Your task to perform on an android device: stop showing notifications on the lock screen Image 0: 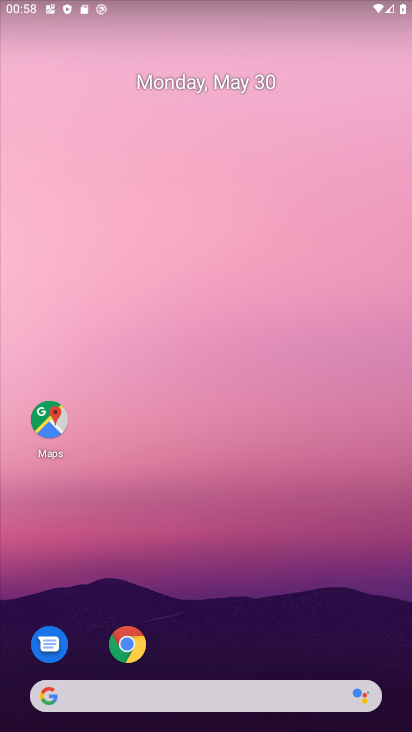
Step 0: drag from (330, 557) to (331, 168)
Your task to perform on an android device: stop showing notifications on the lock screen Image 1: 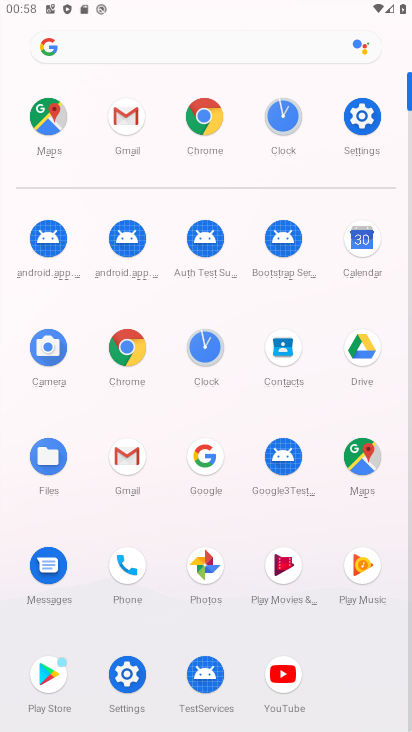
Step 1: click (377, 127)
Your task to perform on an android device: stop showing notifications on the lock screen Image 2: 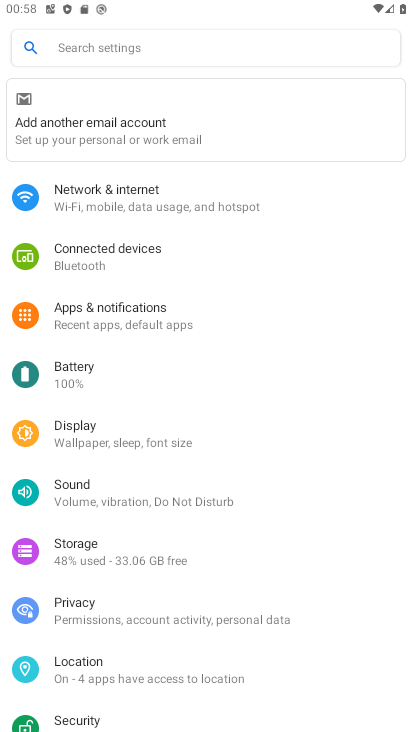
Step 2: click (161, 320)
Your task to perform on an android device: stop showing notifications on the lock screen Image 3: 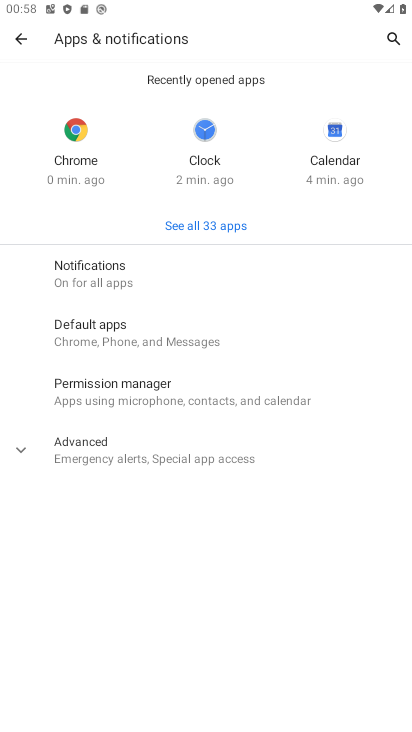
Step 3: click (125, 277)
Your task to perform on an android device: stop showing notifications on the lock screen Image 4: 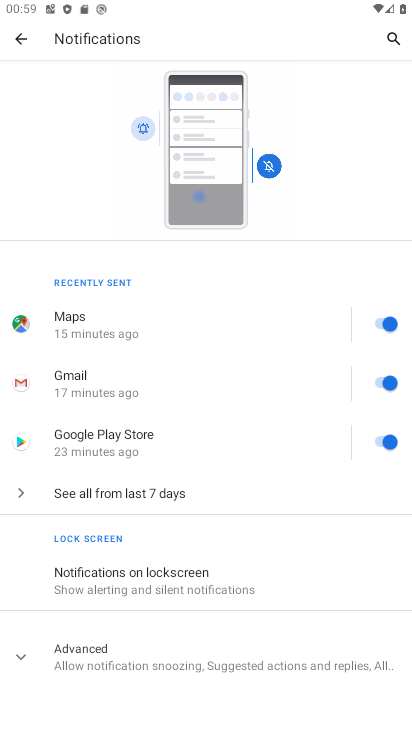
Step 4: click (175, 565)
Your task to perform on an android device: stop showing notifications on the lock screen Image 5: 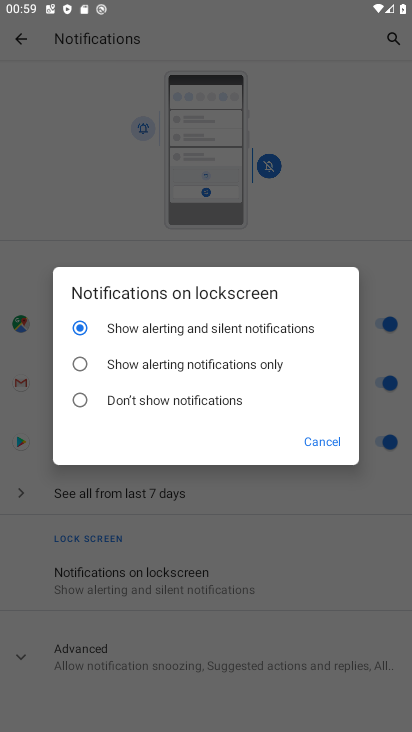
Step 5: click (162, 408)
Your task to perform on an android device: stop showing notifications on the lock screen Image 6: 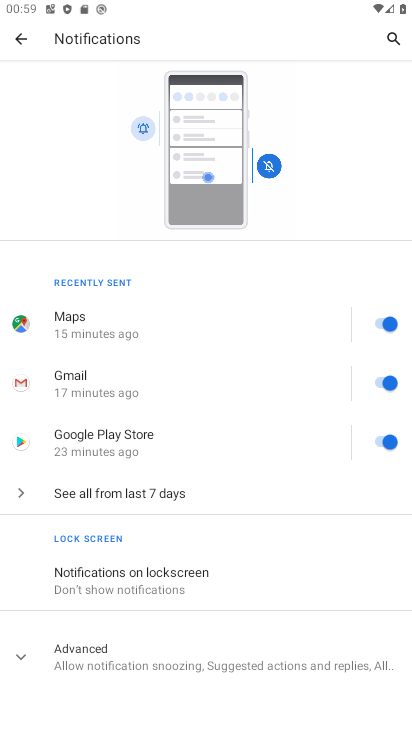
Step 6: task complete